Your task to perform on an android device: delete location history Image 0: 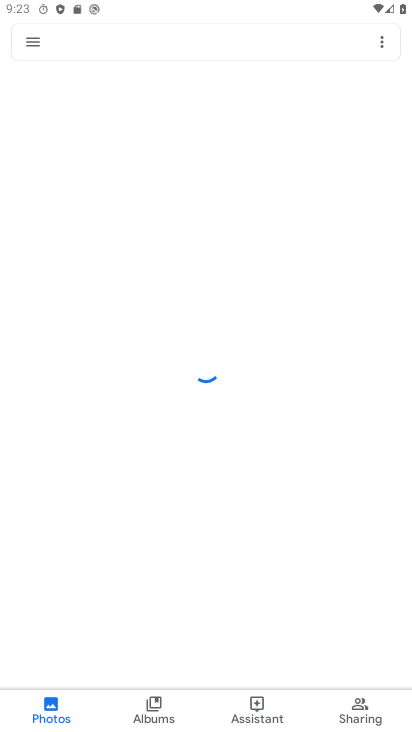
Step 0: press home button
Your task to perform on an android device: delete location history Image 1: 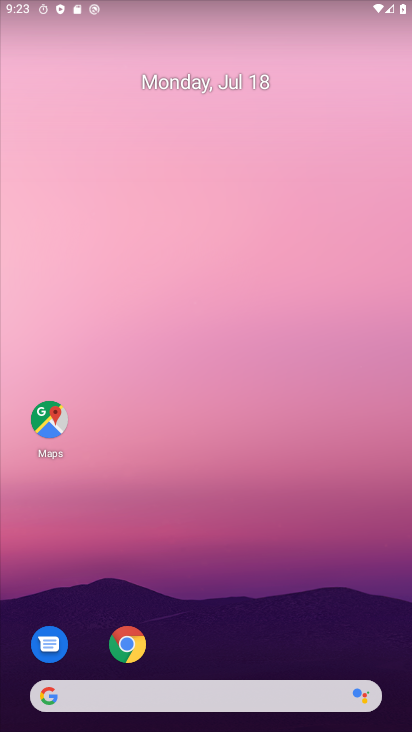
Step 1: click (46, 415)
Your task to perform on an android device: delete location history Image 2: 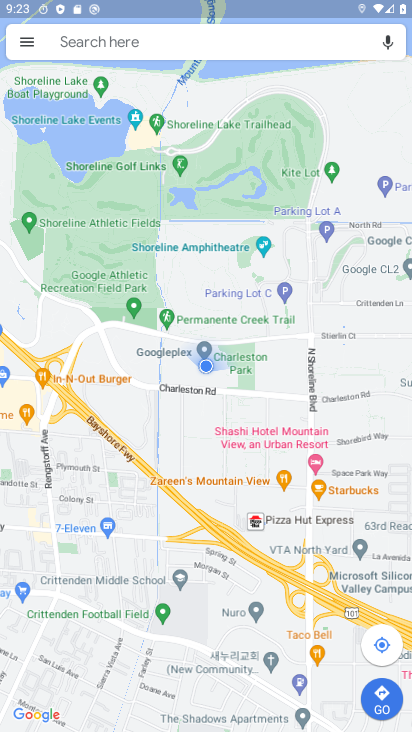
Step 2: click (26, 42)
Your task to perform on an android device: delete location history Image 3: 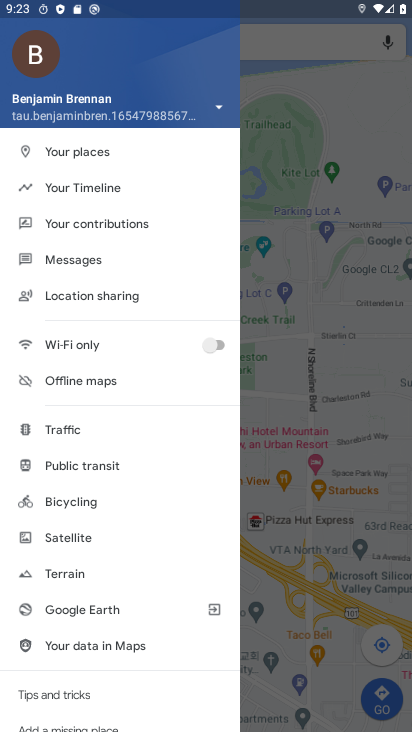
Step 3: click (111, 185)
Your task to perform on an android device: delete location history Image 4: 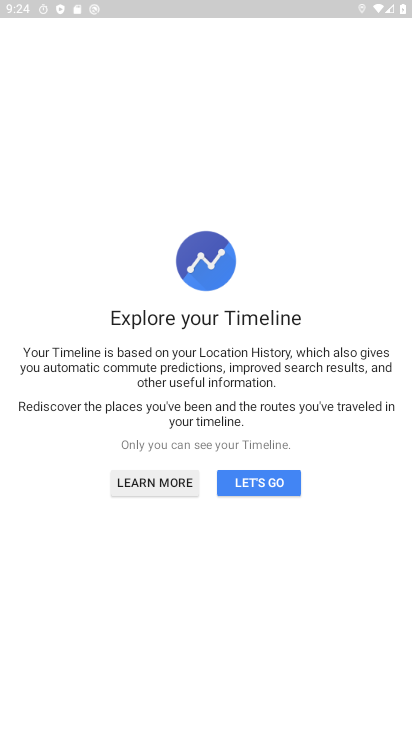
Step 4: click (257, 484)
Your task to perform on an android device: delete location history Image 5: 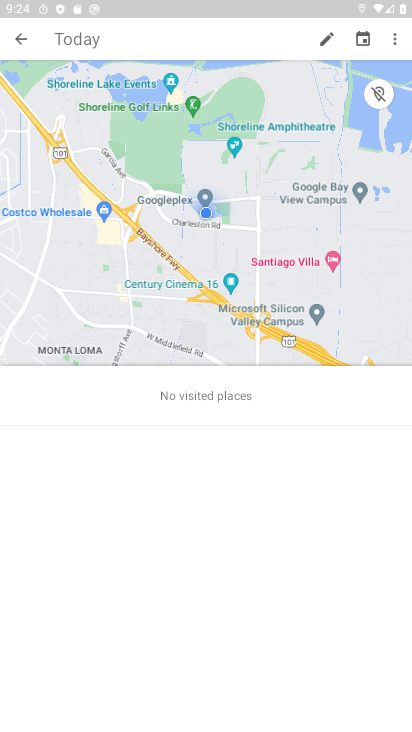
Step 5: click (392, 34)
Your task to perform on an android device: delete location history Image 6: 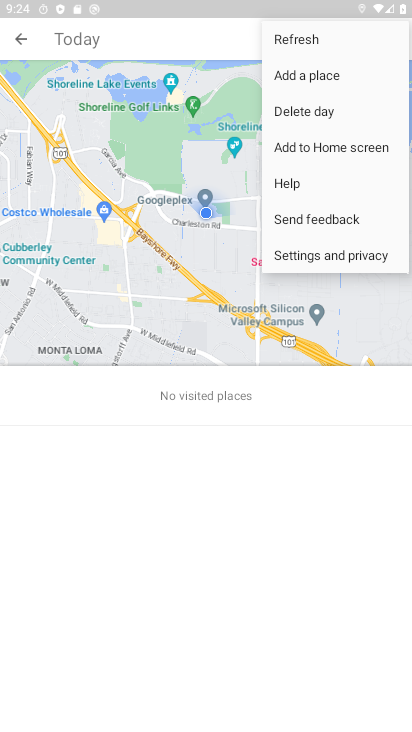
Step 6: click (326, 254)
Your task to perform on an android device: delete location history Image 7: 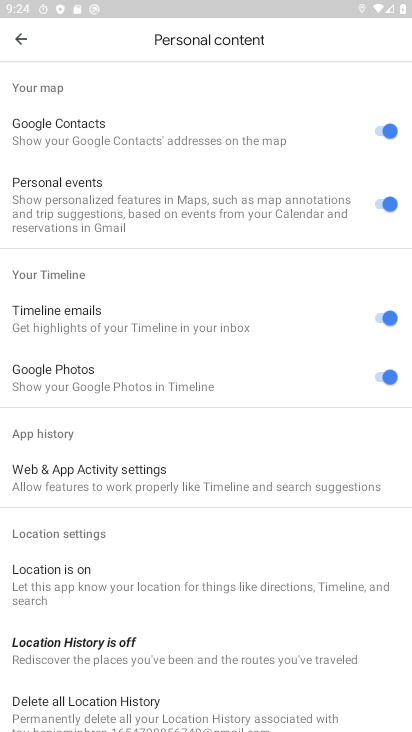
Step 7: click (173, 714)
Your task to perform on an android device: delete location history Image 8: 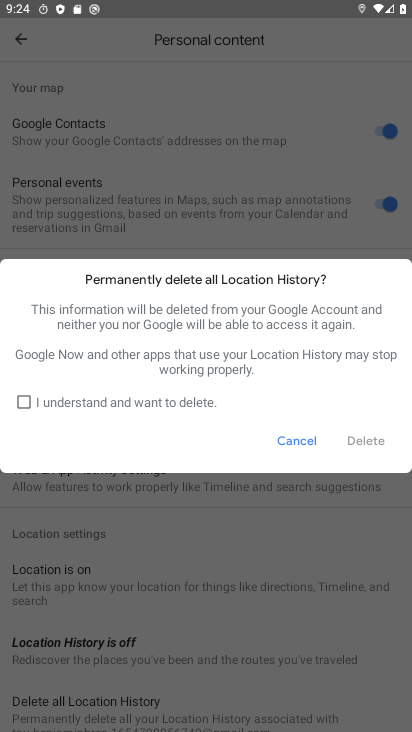
Step 8: click (24, 398)
Your task to perform on an android device: delete location history Image 9: 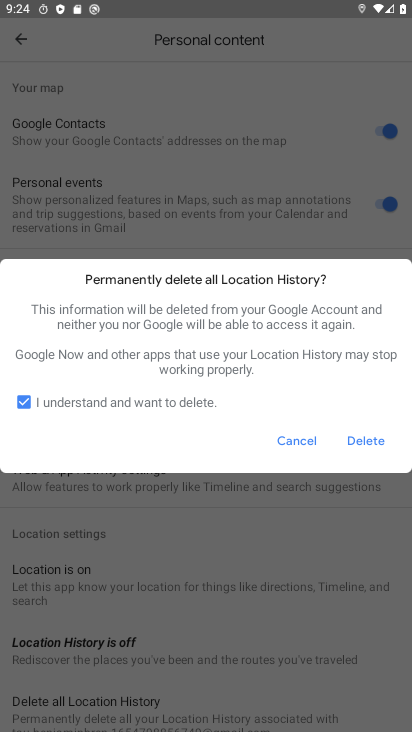
Step 9: click (373, 440)
Your task to perform on an android device: delete location history Image 10: 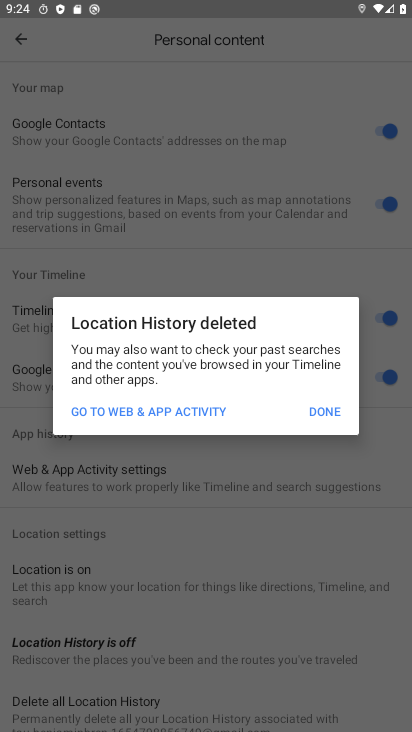
Step 10: click (319, 407)
Your task to perform on an android device: delete location history Image 11: 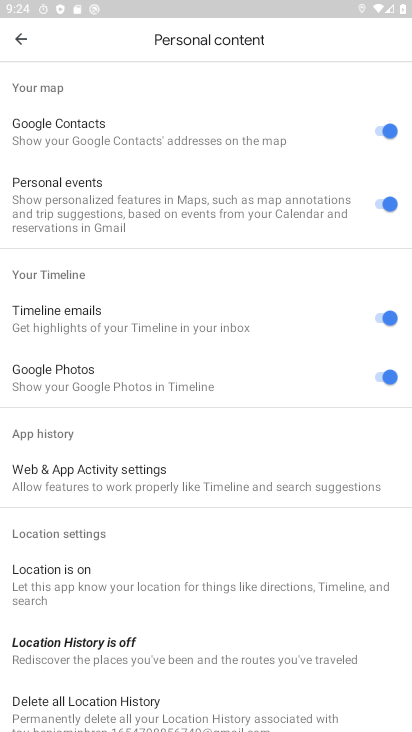
Step 11: task complete